Your task to perform on an android device: Open Yahoo.com Image 0: 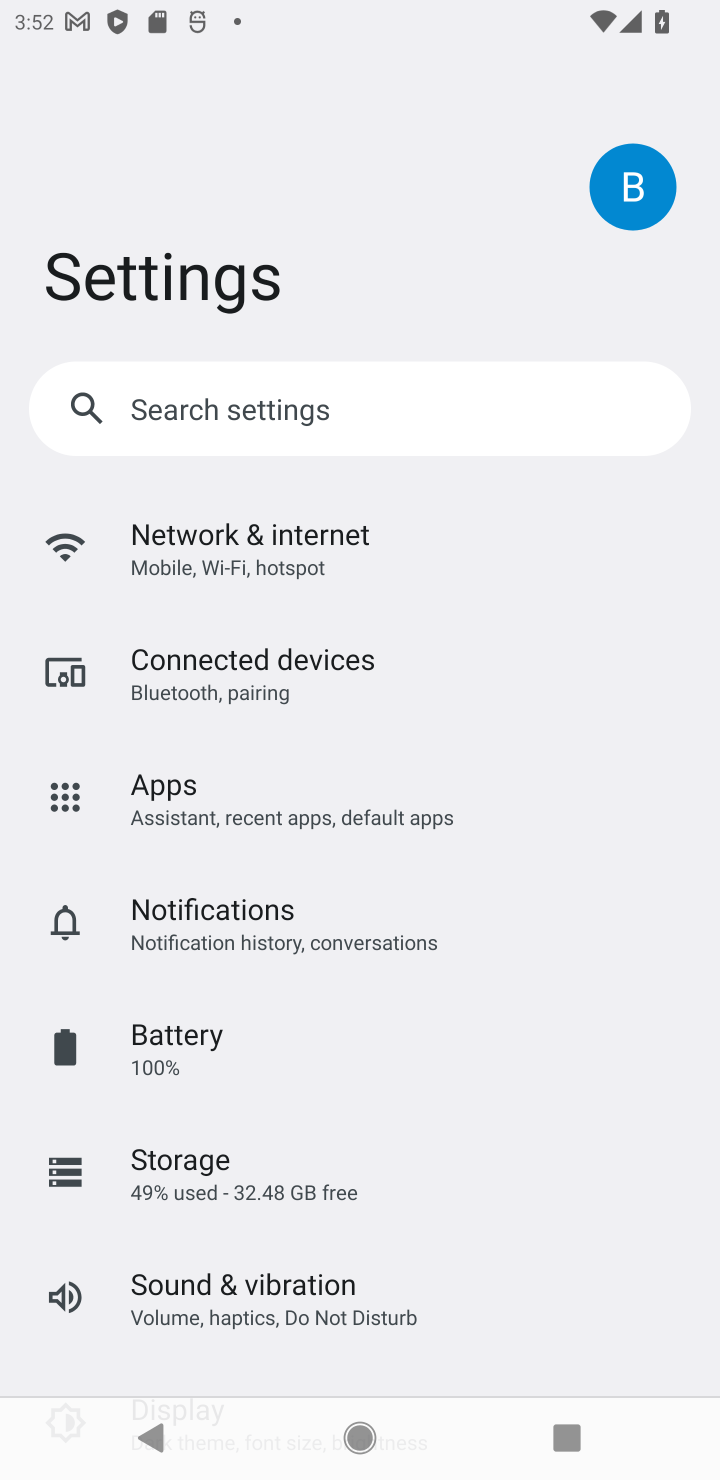
Step 0: press home button
Your task to perform on an android device: Open Yahoo.com Image 1: 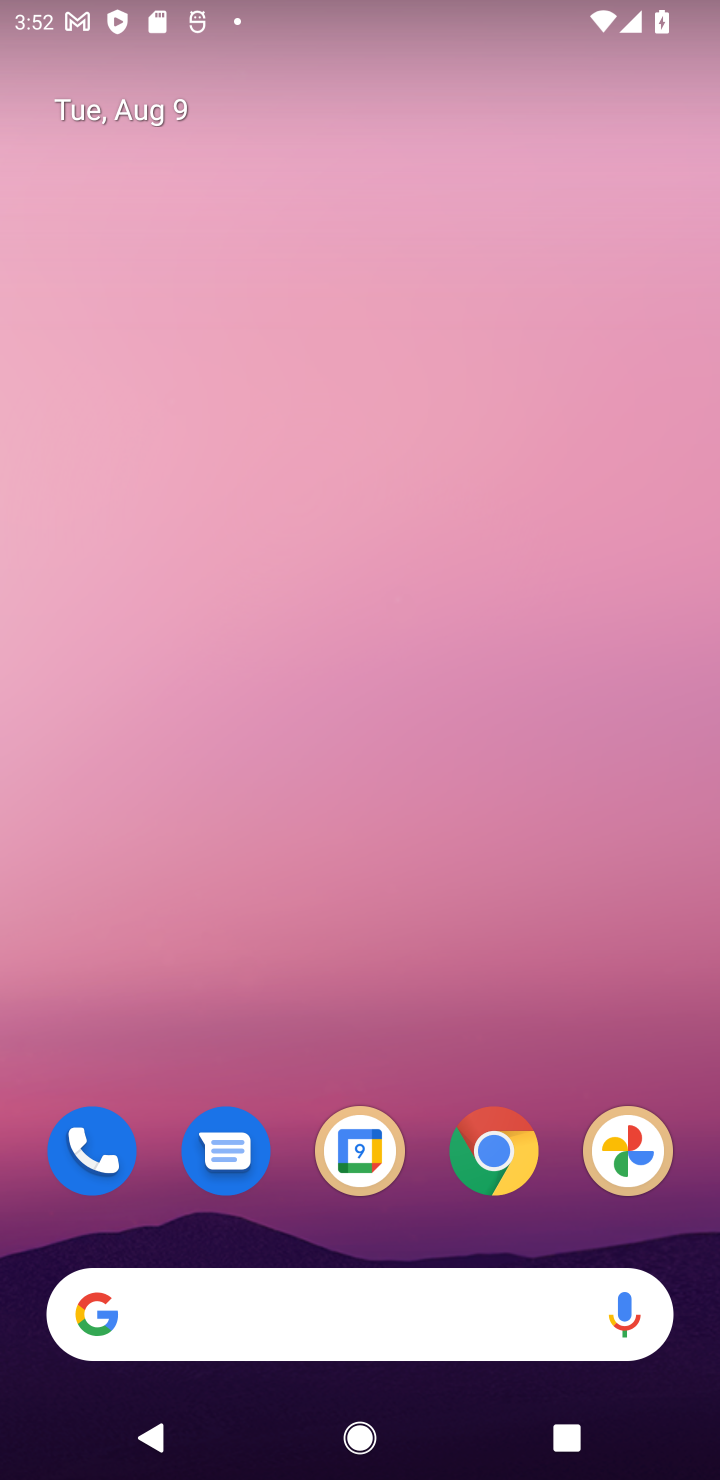
Step 1: click (409, 1294)
Your task to perform on an android device: Open Yahoo.com Image 2: 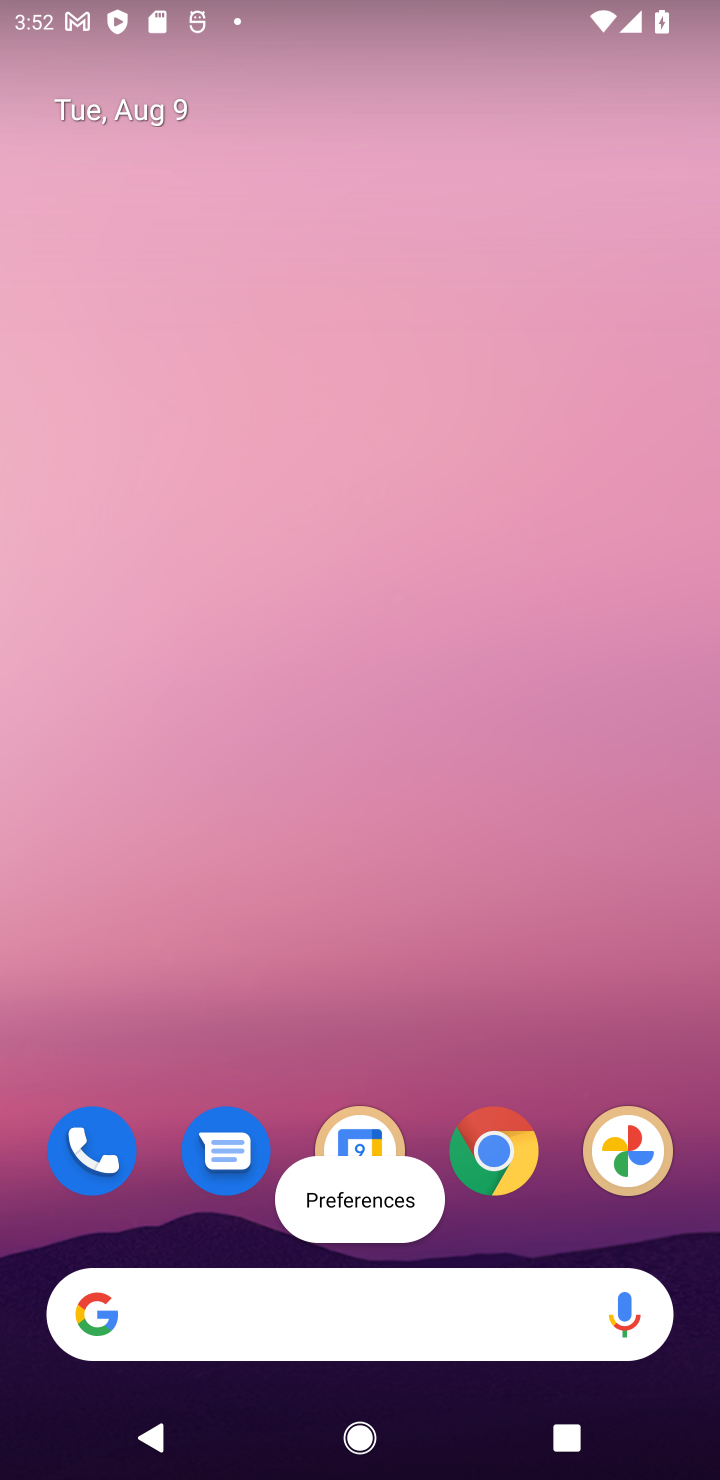
Step 2: click (379, 1298)
Your task to perform on an android device: Open Yahoo.com Image 3: 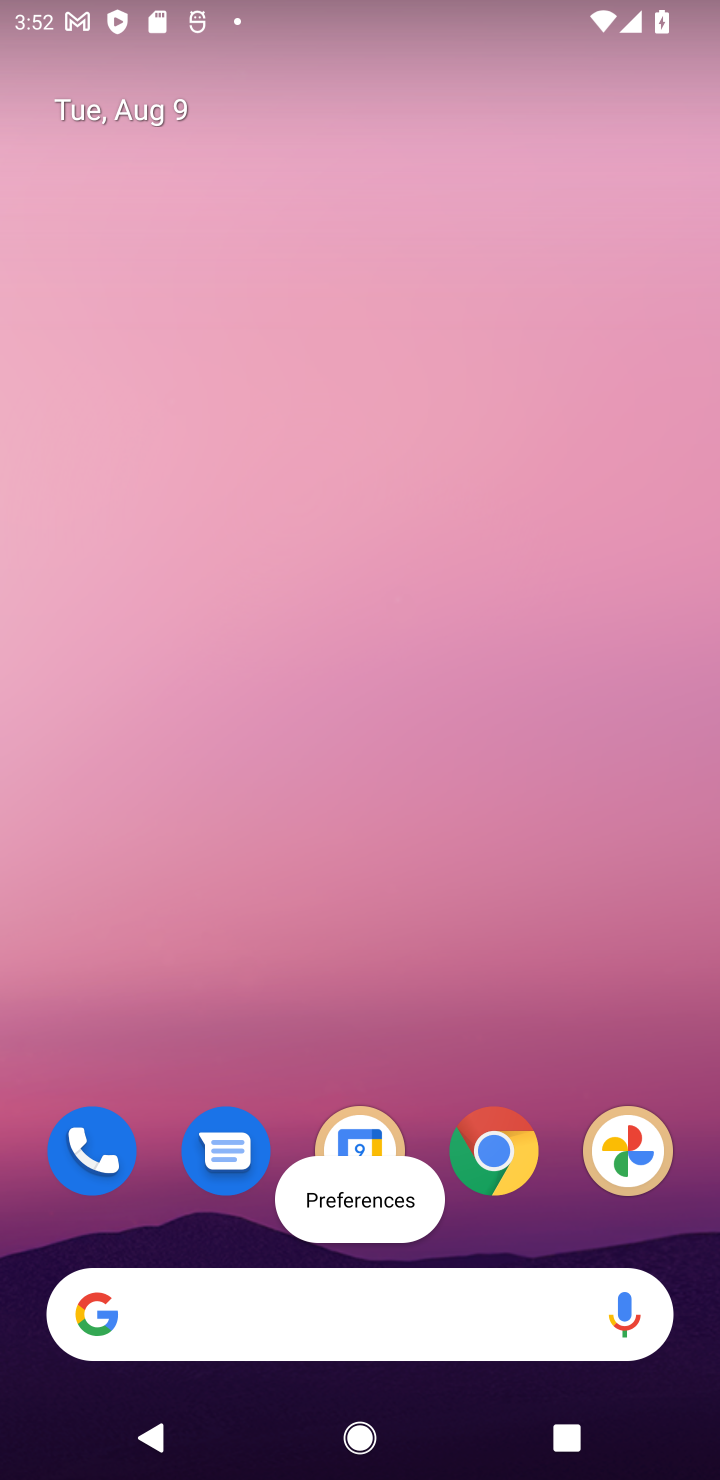
Step 3: click (412, 1307)
Your task to perform on an android device: Open Yahoo.com Image 4: 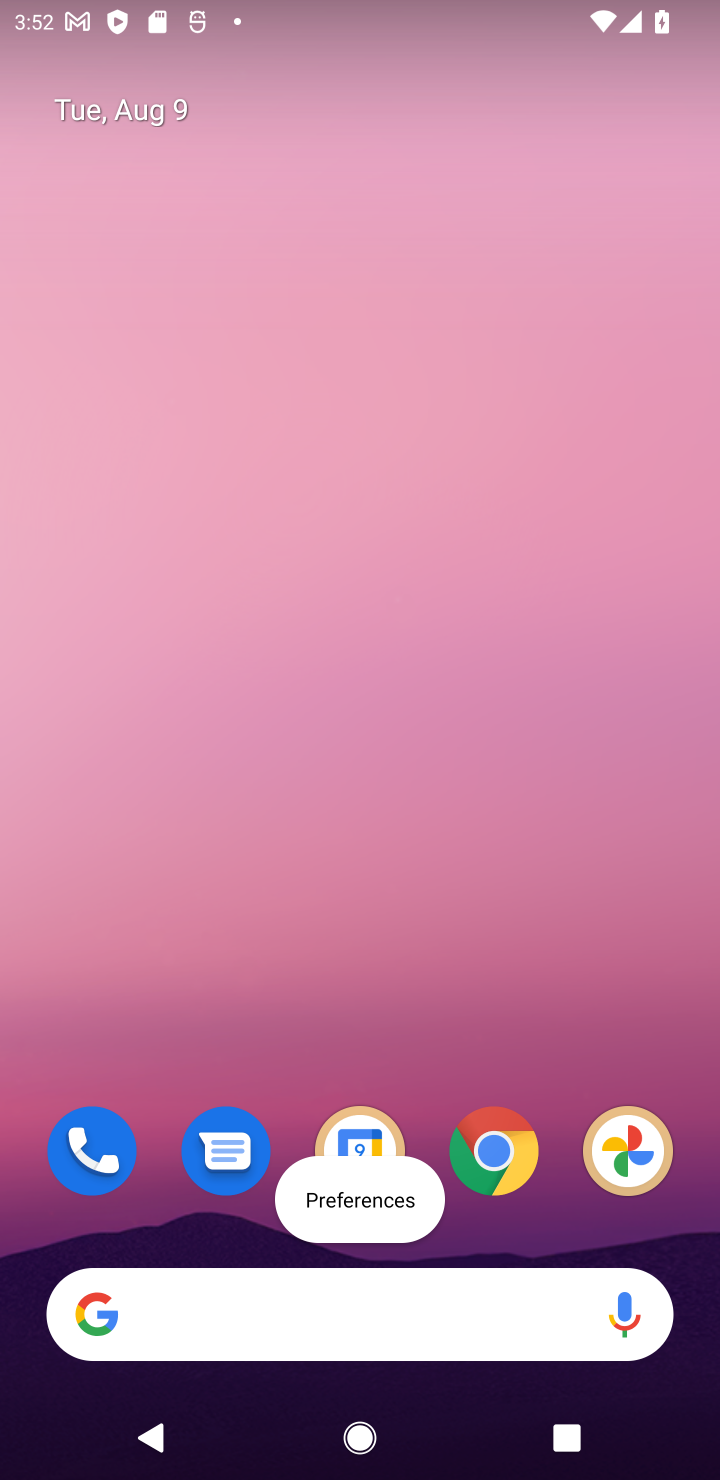
Step 4: click (402, 1293)
Your task to perform on an android device: Open Yahoo.com Image 5: 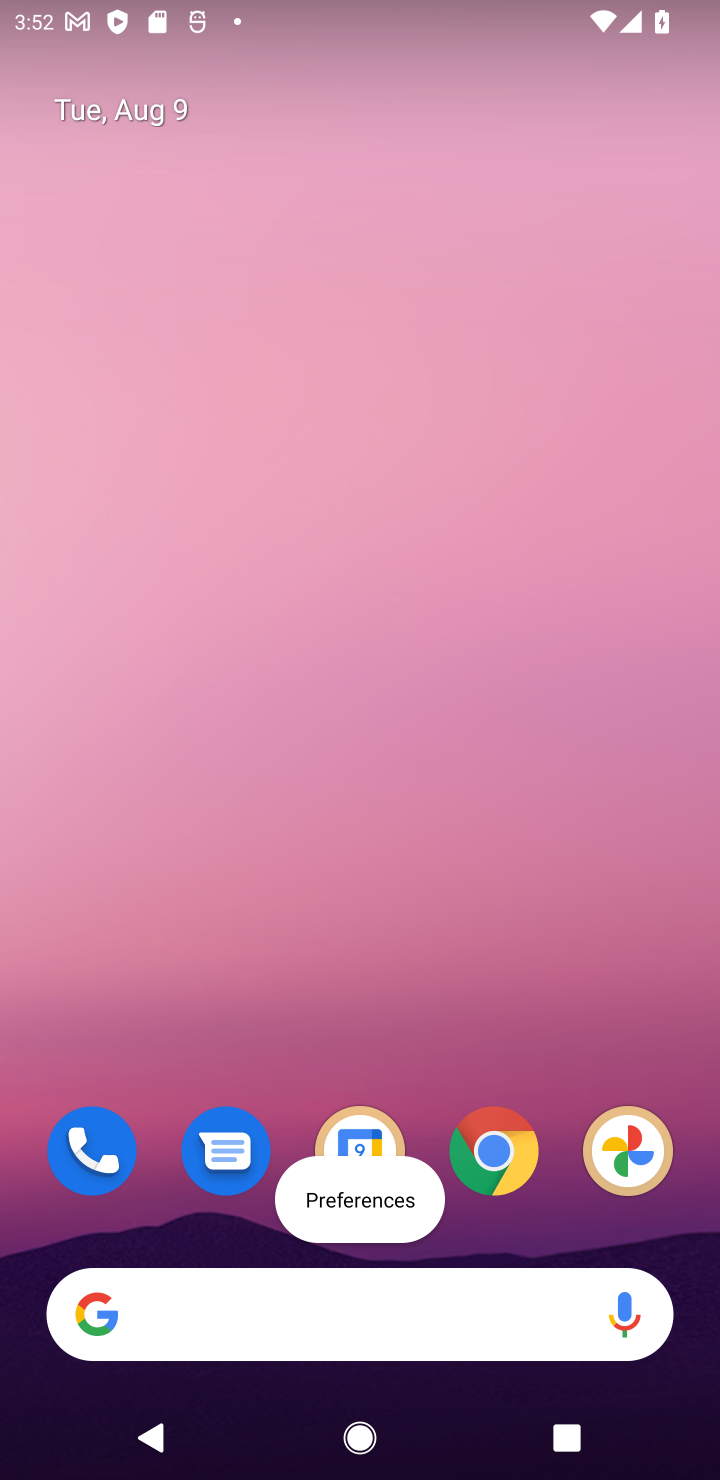
Step 5: click (422, 1329)
Your task to perform on an android device: Open Yahoo.com Image 6: 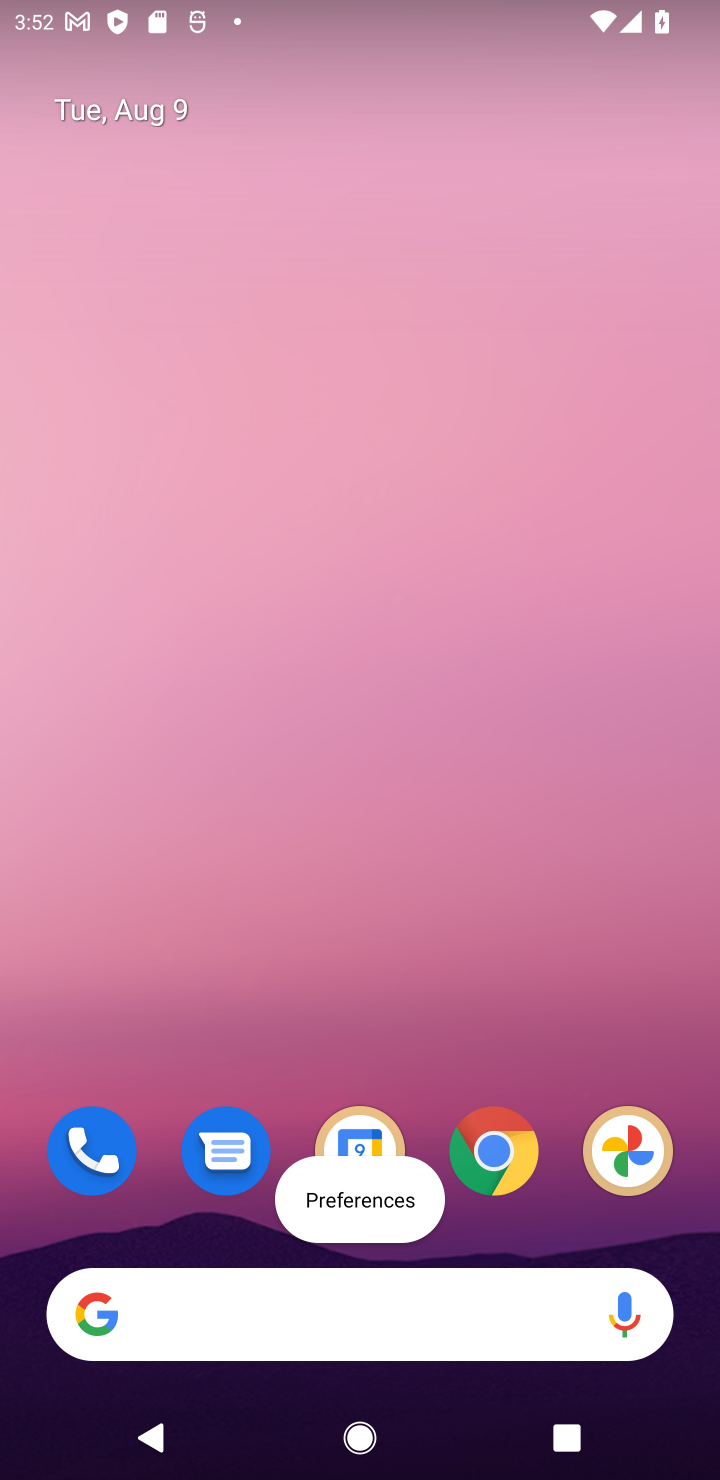
Step 6: click (422, 1329)
Your task to perform on an android device: Open Yahoo.com Image 7: 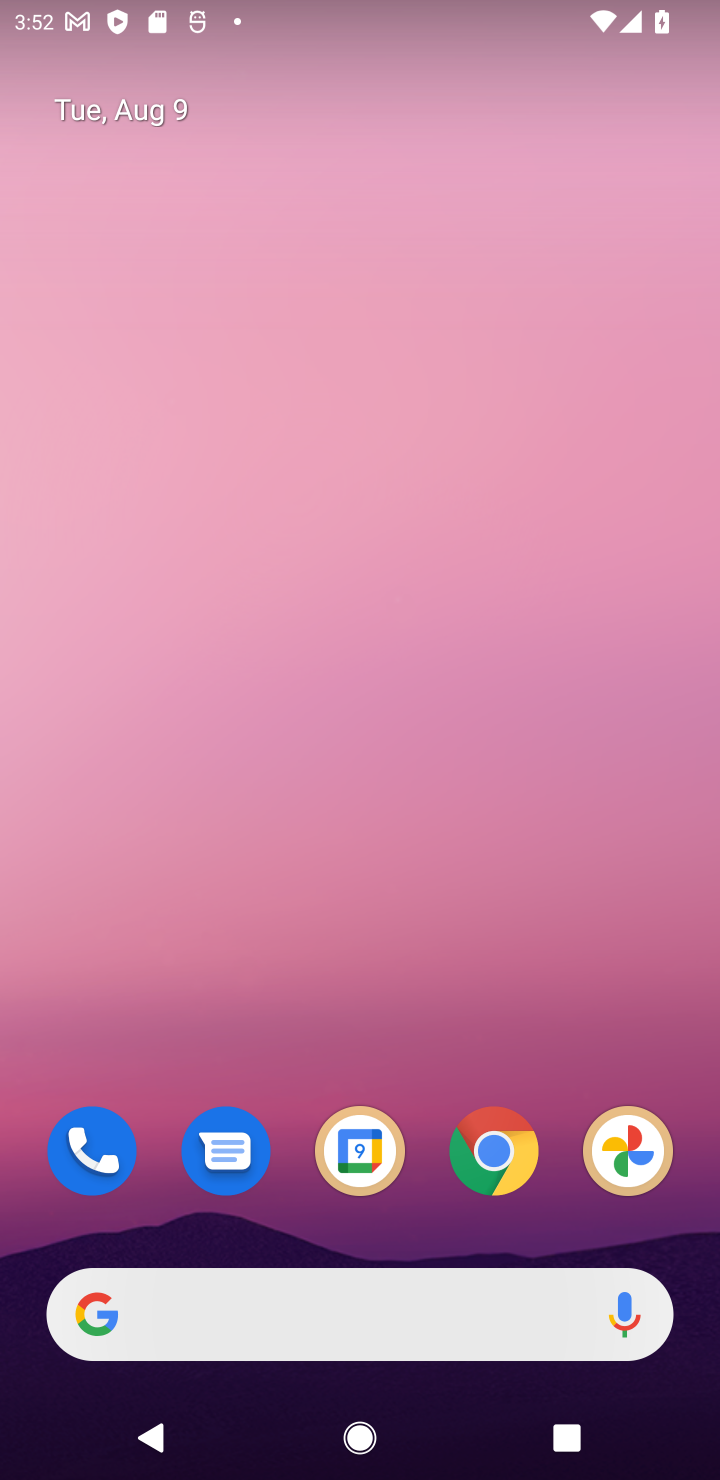
Step 7: click (422, 1329)
Your task to perform on an android device: Open Yahoo.com Image 8: 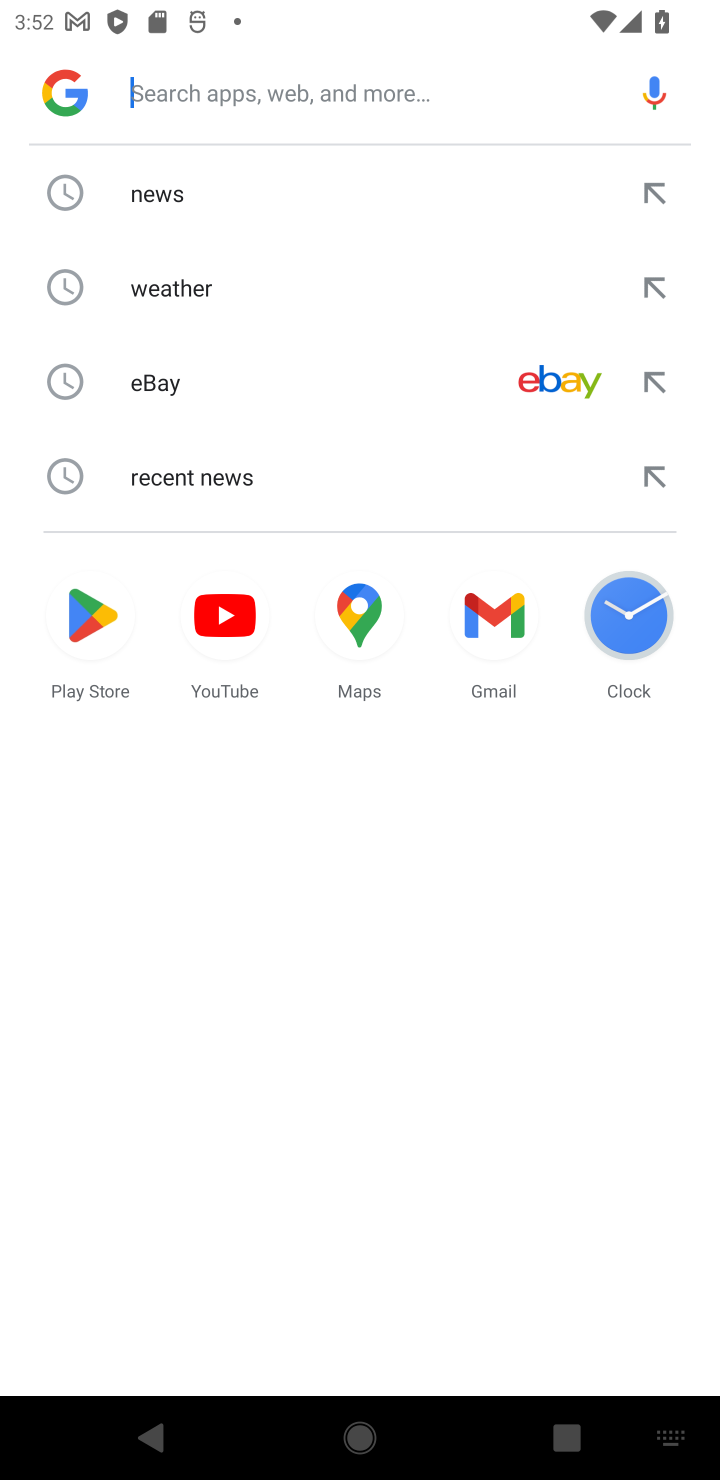
Step 8: type "yahoo.con"
Your task to perform on an android device: Open Yahoo.com Image 9: 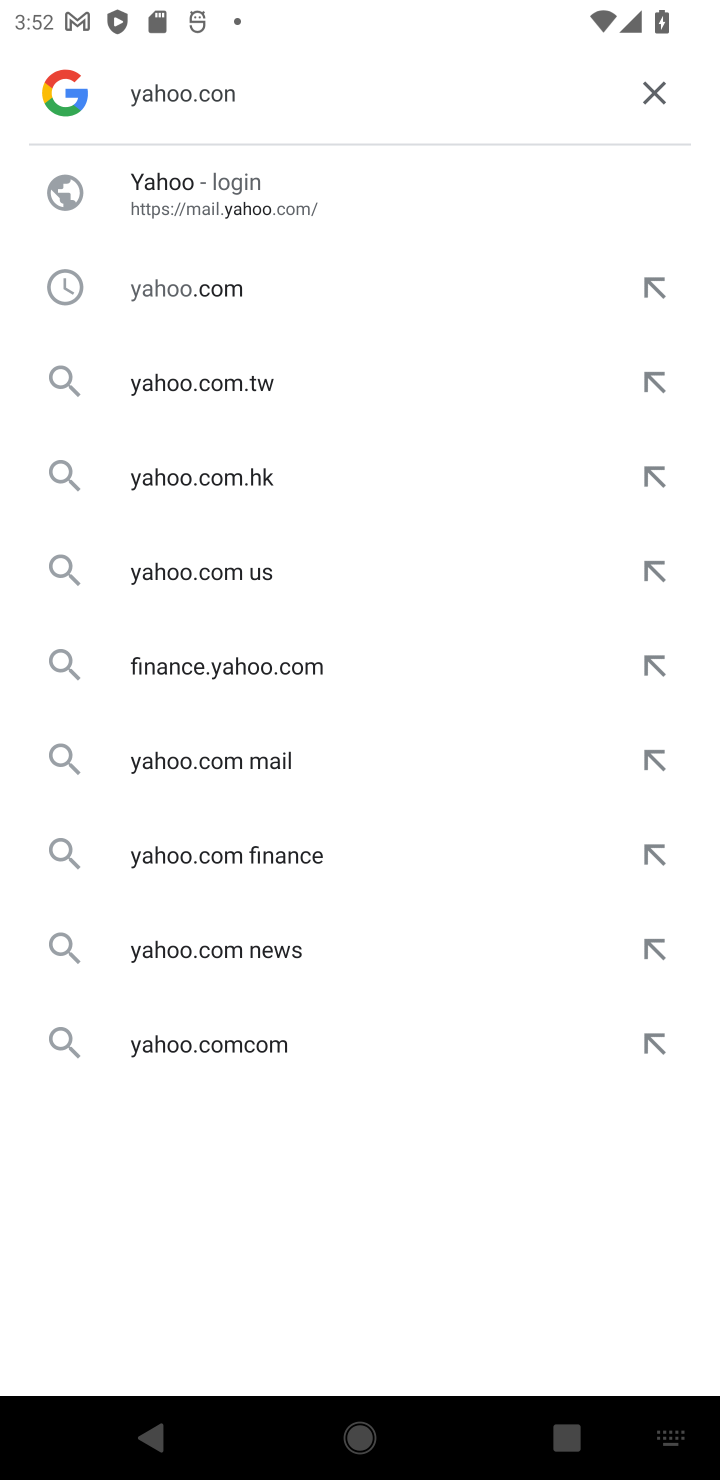
Step 9: click (467, 203)
Your task to perform on an android device: Open Yahoo.com Image 10: 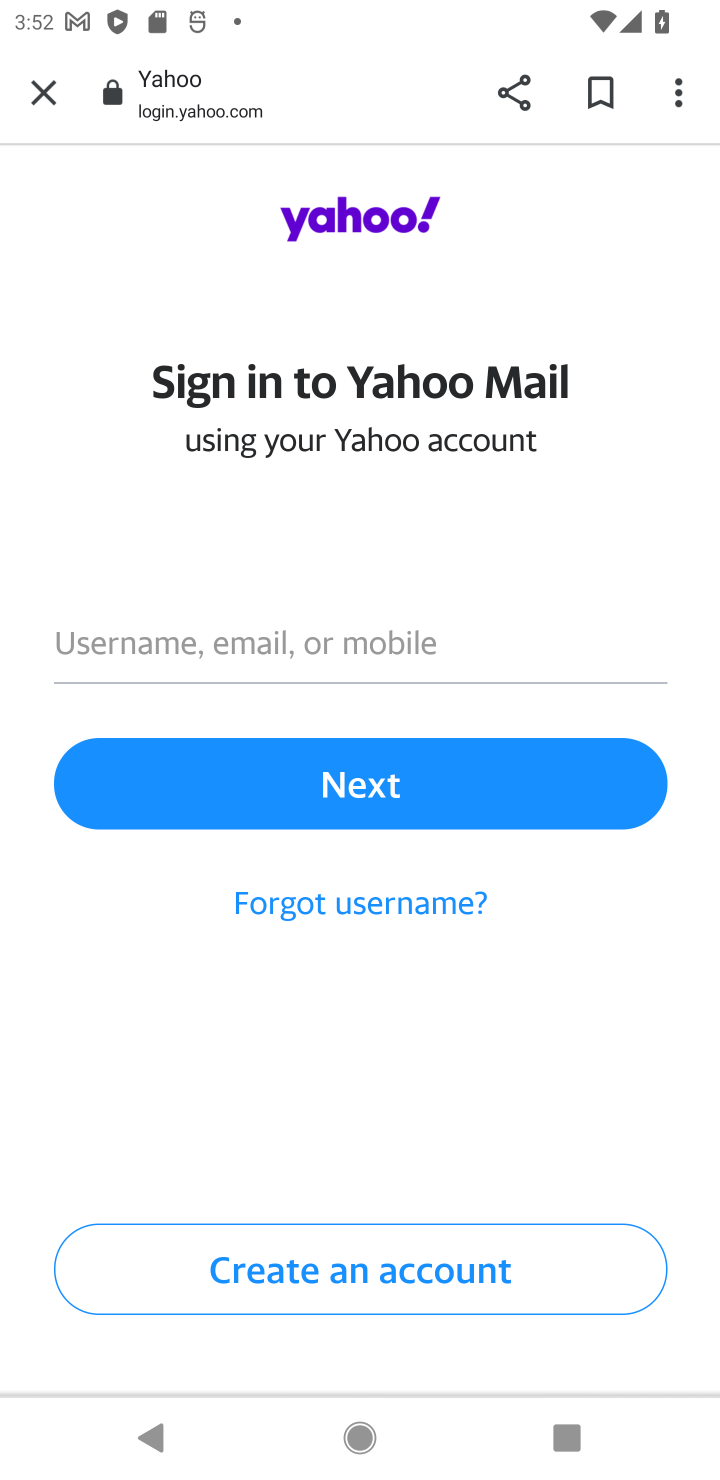
Step 10: task complete